Your task to perform on an android device: change alarm snooze length Image 0: 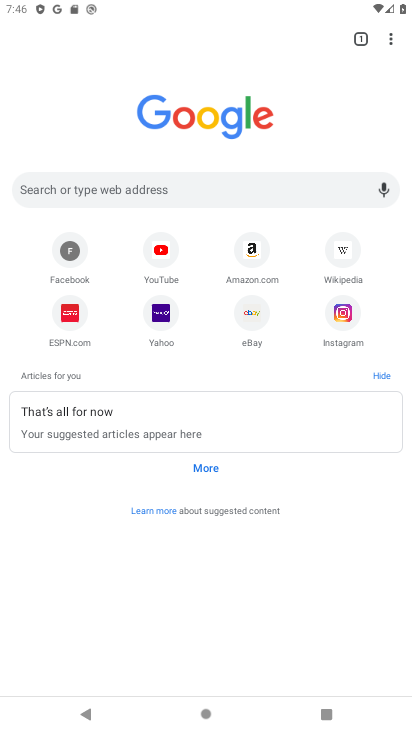
Step 0: drag from (391, 40) to (242, 328)
Your task to perform on an android device: change alarm snooze length Image 1: 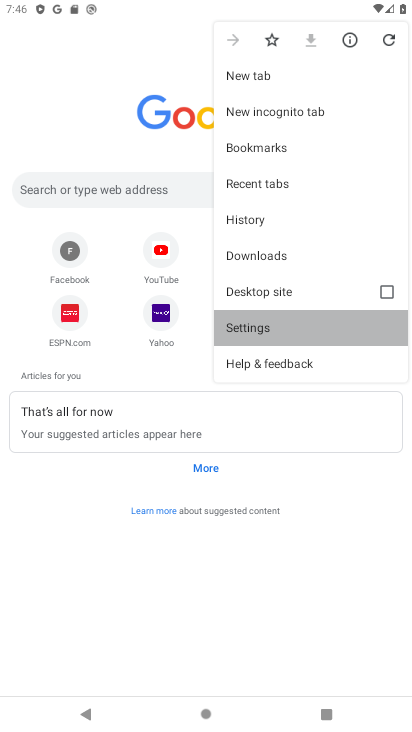
Step 1: click (243, 328)
Your task to perform on an android device: change alarm snooze length Image 2: 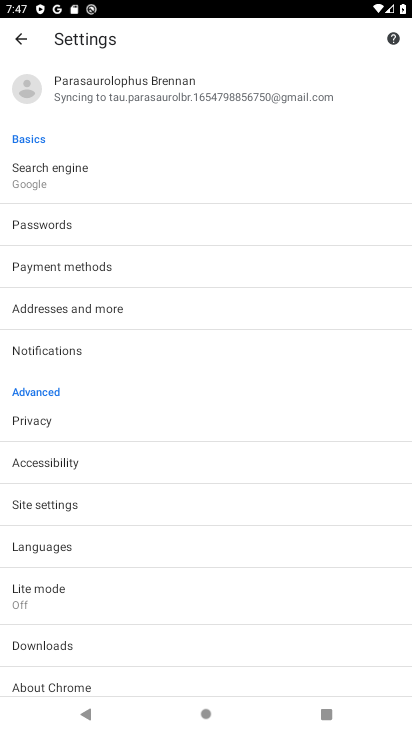
Step 2: click (14, 39)
Your task to perform on an android device: change alarm snooze length Image 3: 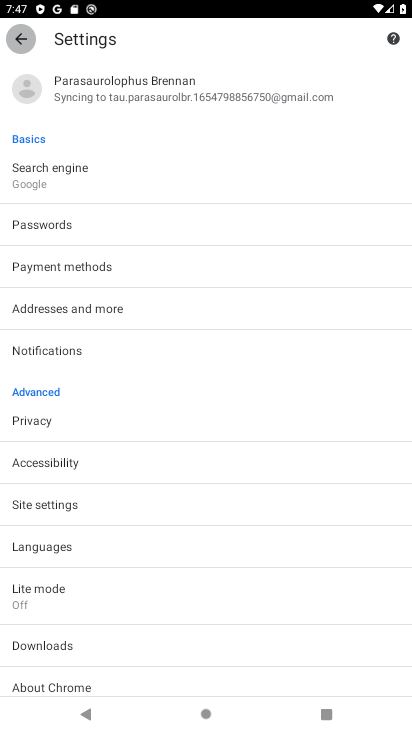
Step 3: click (15, 41)
Your task to perform on an android device: change alarm snooze length Image 4: 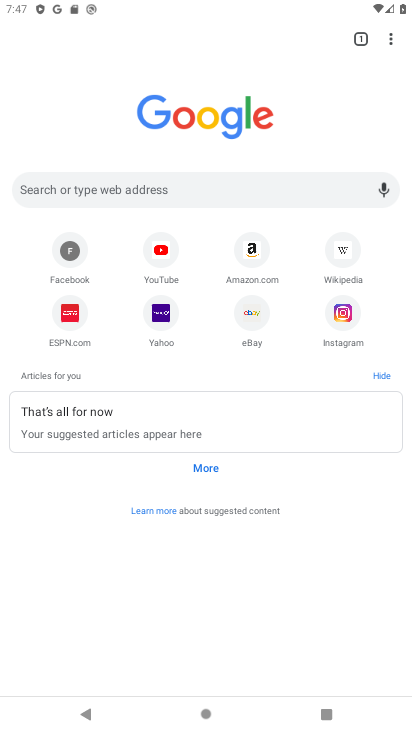
Step 4: click (18, 42)
Your task to perform on an android device: change alarm snooze length Image 5: 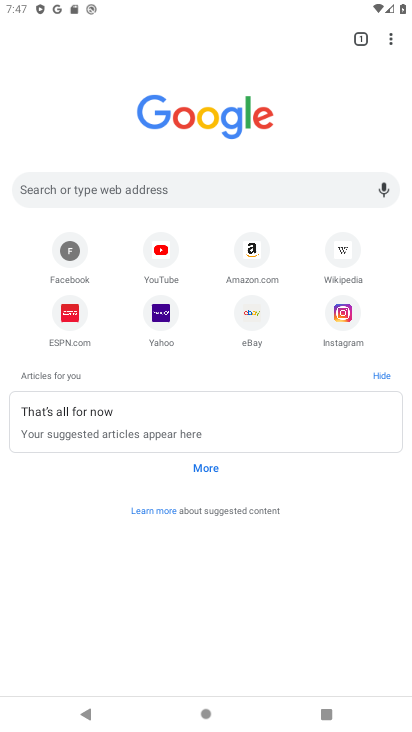
Step 5: click (21, 39)
Your task to perform on an android device: change alarm snooze length Image 6: 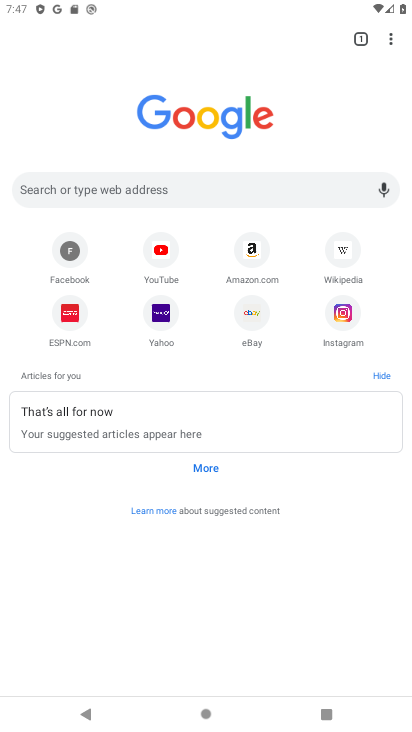
Step 6: press back button
Your task to perform on an android device: change alarm snooze length Image 7: 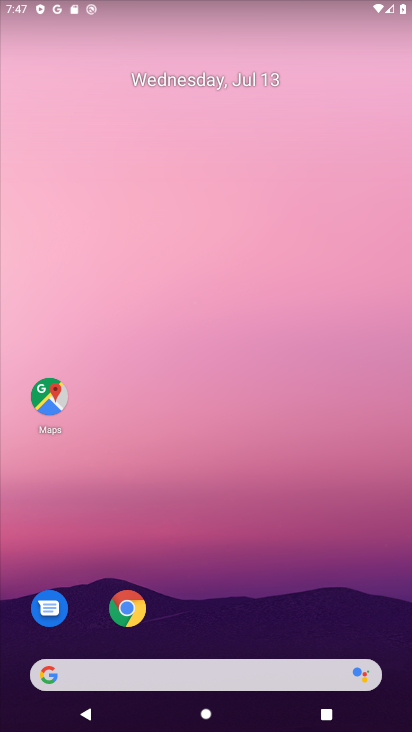
Step 7: press home button
Your task to perform on an android device: change alarm snooze length Image 8: 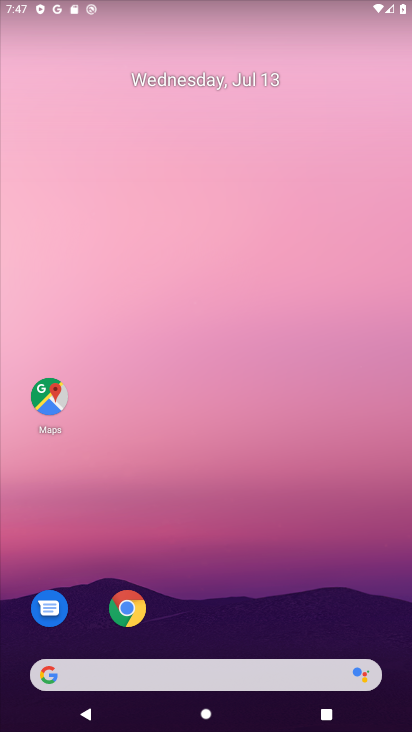
Step 8: drag from (274, 678) to (278, 109)
Your task to perform on an android device: change alarm snooze length Image 9: 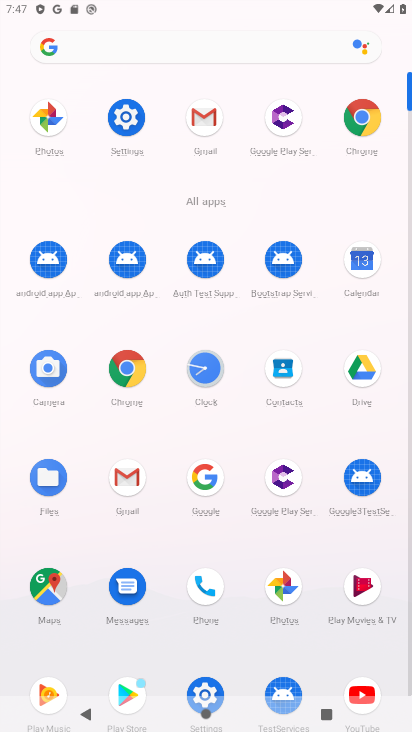
Step 9: click (204, 374)
Your task to perform on an android device: change alarm snooze length Image 10: 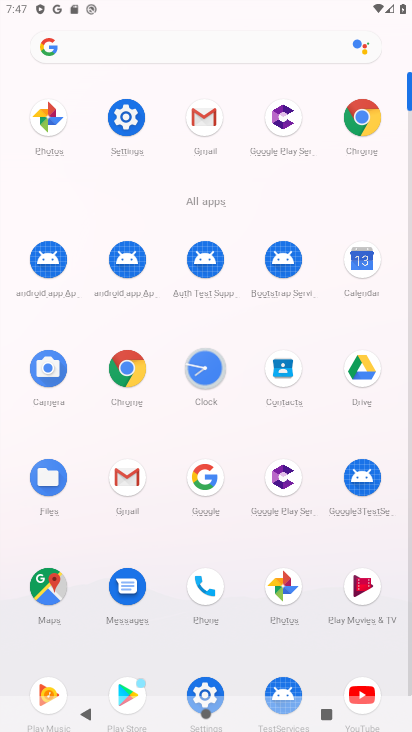
Step 10: click (205, 374)
Your task to perform on an android device: change alarm snooze length Image 11: 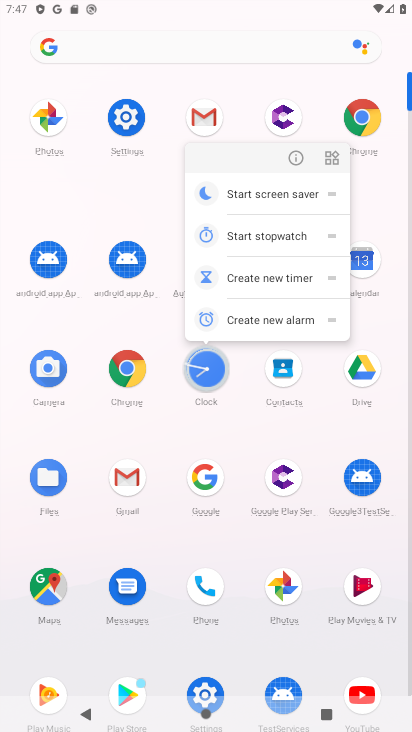
Step 11: click (207, 371)
Your task to perform on an android device: change alarm snooze length Image 12: 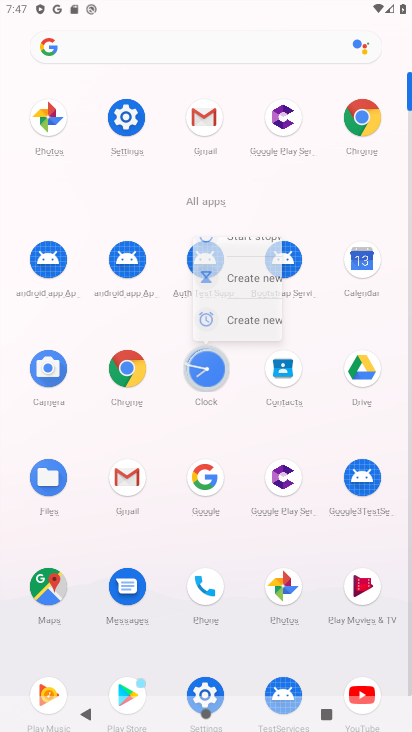
Step 12: click (208, 365)
Your task to perform on an android device: change alarm snooze length Image 13: 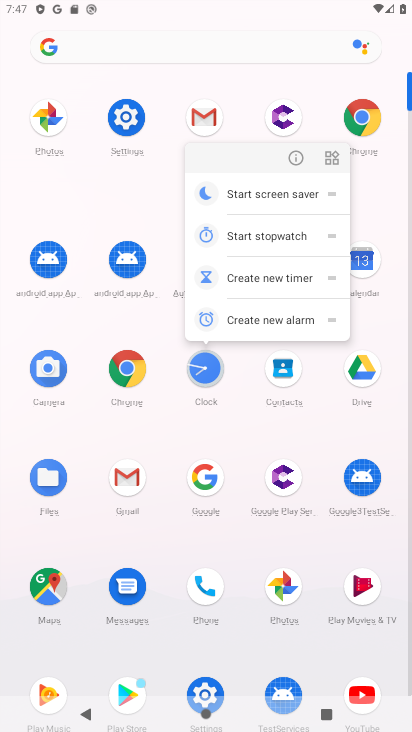
Step 13: click (208, 365)
Your task to perform on an android device: change alarm snooze length Image 14: 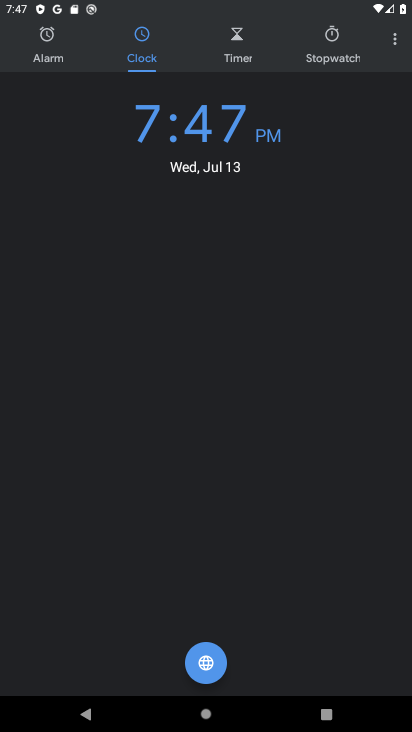
Step 14: click (397, 40)
Your task to perform on an android device: change alarm snooze length Image 15: 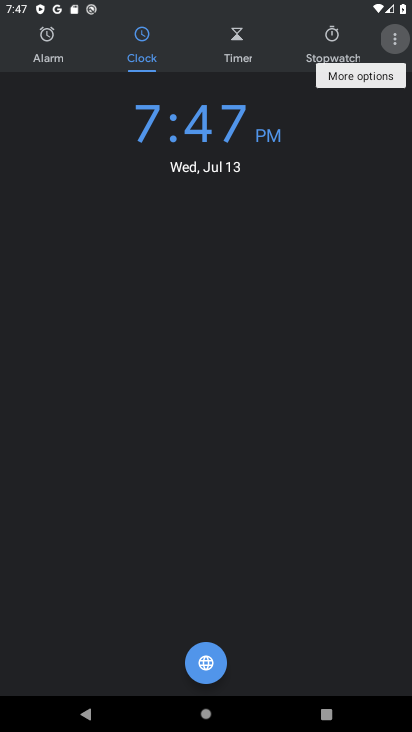
Step 15: click (392, 35)
Your task to perform on an android device: change alarm snooze length Image 16: 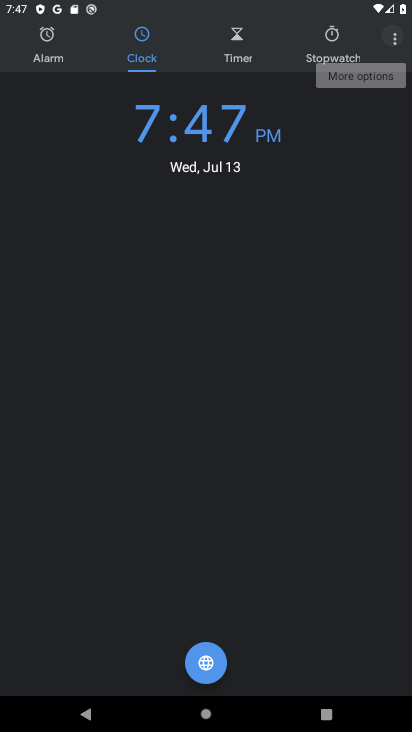
Step 16: click (391, 36)
Your task to perform on an android device: change alarm snooze length Image 17: 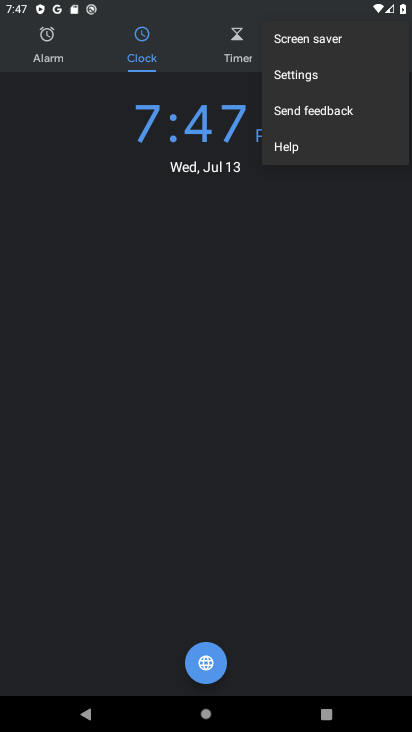
Step 17: drag from (391, 37) to (291, 75)
Your task to perform on an android device: change alarm snooze length Image 18: 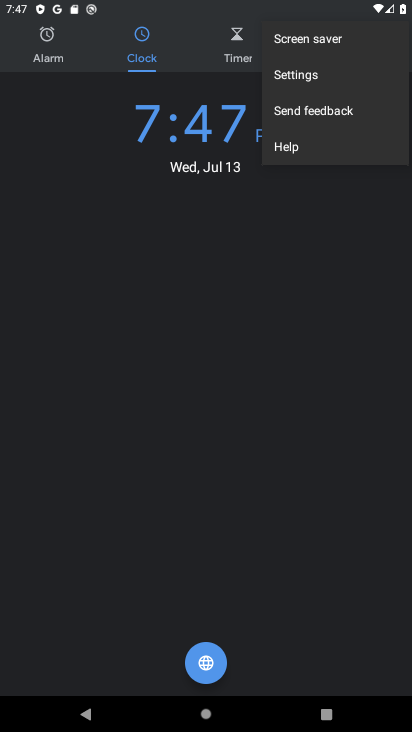
Step 18: click (291, 76)
Your task to perform on an android device: change alarm snooze length Image 19: 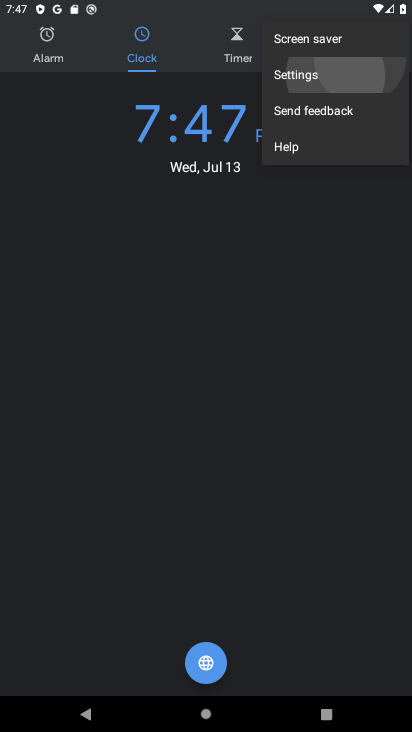
Step 19: click (291, 76)
Your task to perform on an android device: change alarm snooze length Image 20: 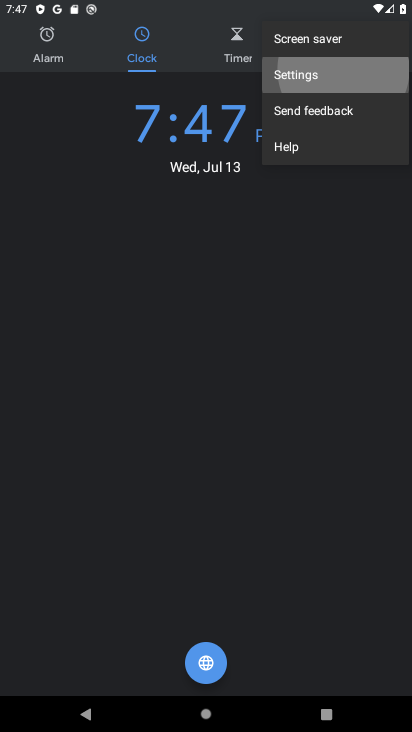
Step 20: click (291, 76)
Your task to perform on an android device: change alarm snooze length Image 21: 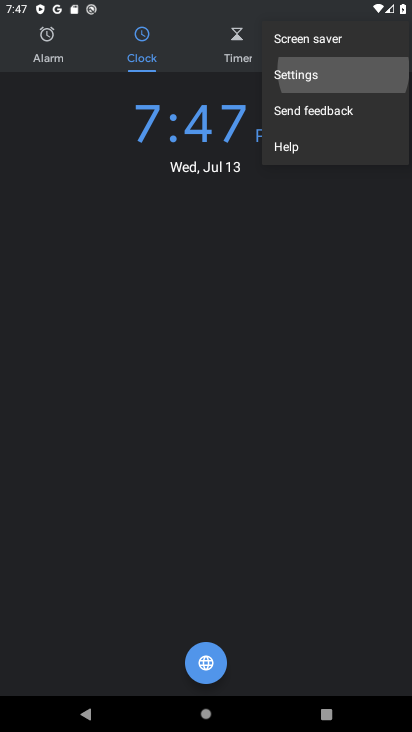
Step 21: click (293, 77)
Your task to perform on an android device: change alarm snooze length Image 22: 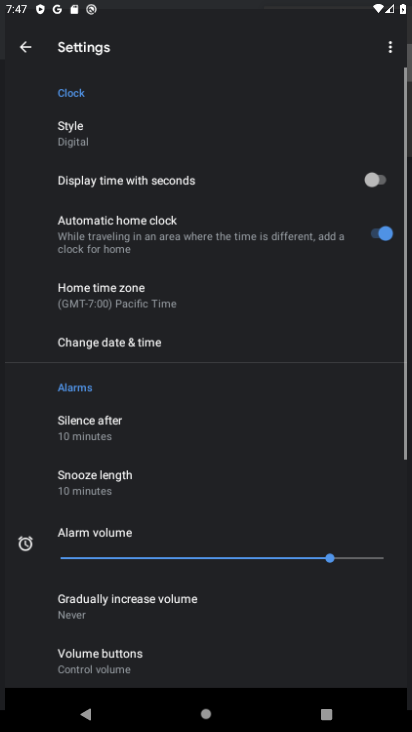
Step 22: click (293, 77)
Your task to perform on an android device: change alarm snooze length Image 23: 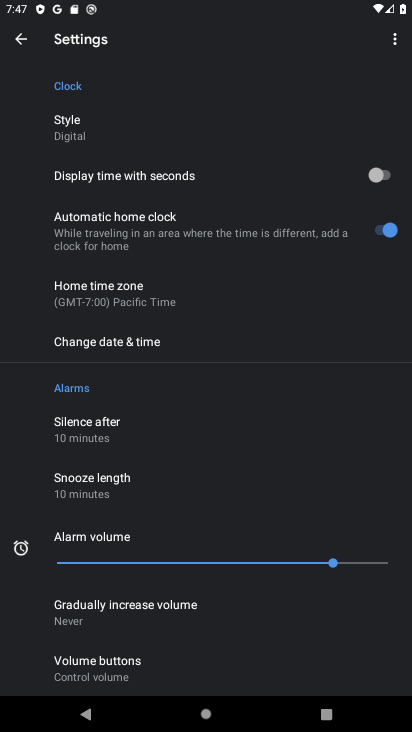
Step 23: click (82, 485)
Your task to perform on an android device: change alarm snooze length Image 24: 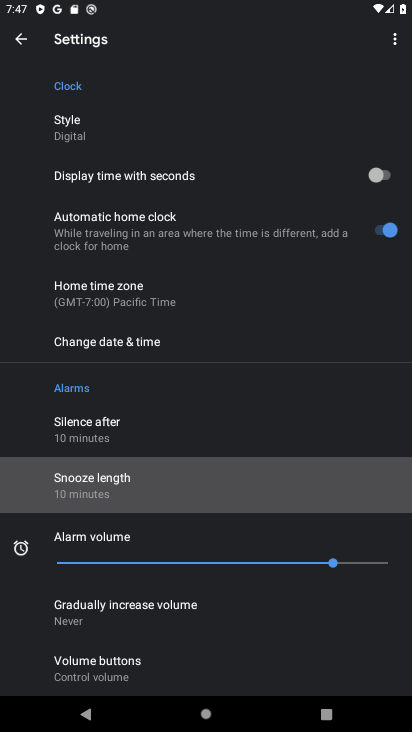
Step 24: click (83, 485)
Your task to perform on an android device: change alarm snooze length Image 25: 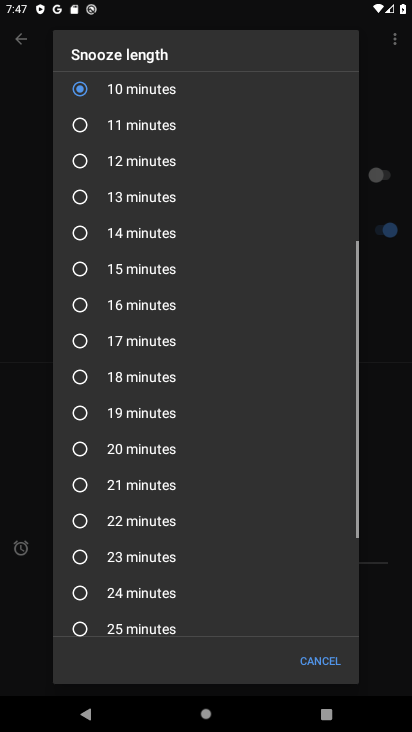
Step 25: click (84, 479)
Your task to perform on an android device: change alarm snooze length Image 26: 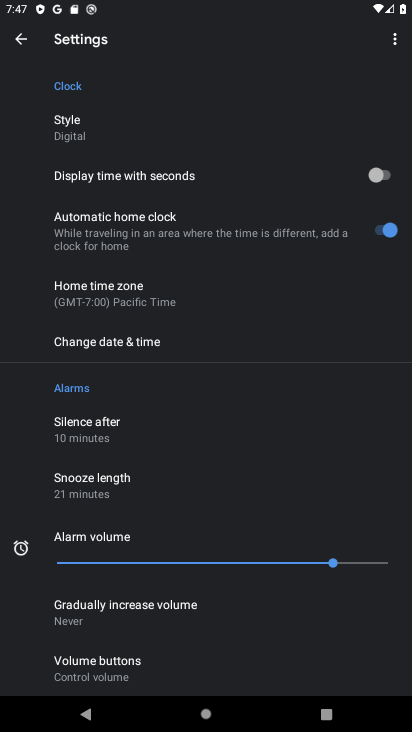
Step 26: task complete